Your task to perform on an android device: What's the weather? Image 0: 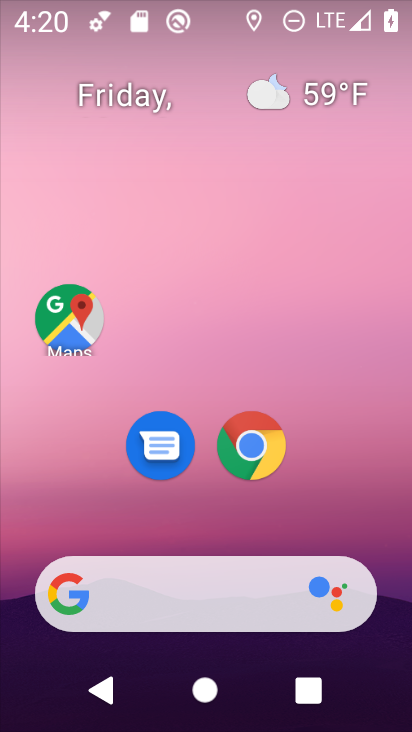
Step 0: click (317, 89)
Your task to perform on an android device: What's the weather? Image 1: 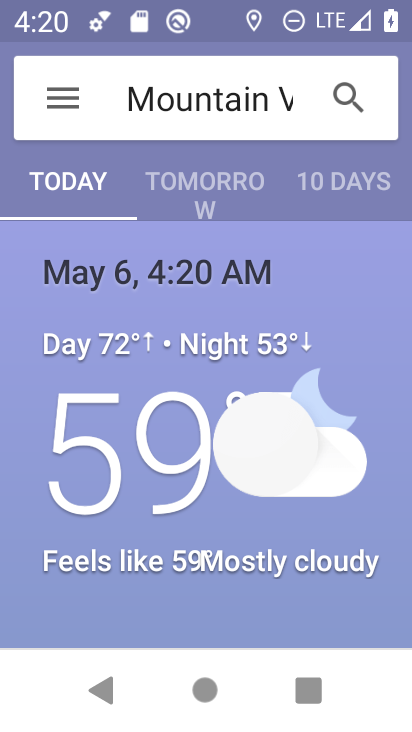
Step 1: task complete